Your task to perform on an android device: add a contact Image 0: 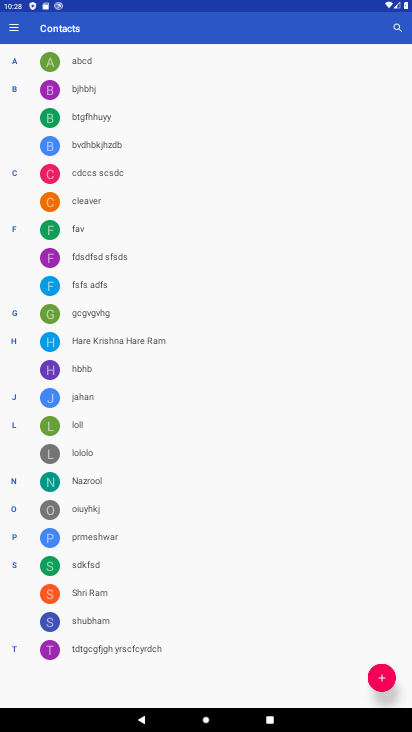
Step 0: click (377, 679)
Your task to perform on an android device: add a contact Image 1: 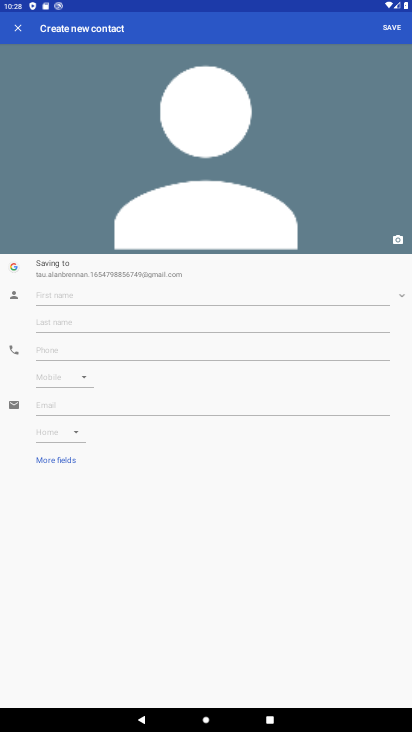
Step 1: click (104, 290)
Your task to perform on an android device: add a contact Image 2: 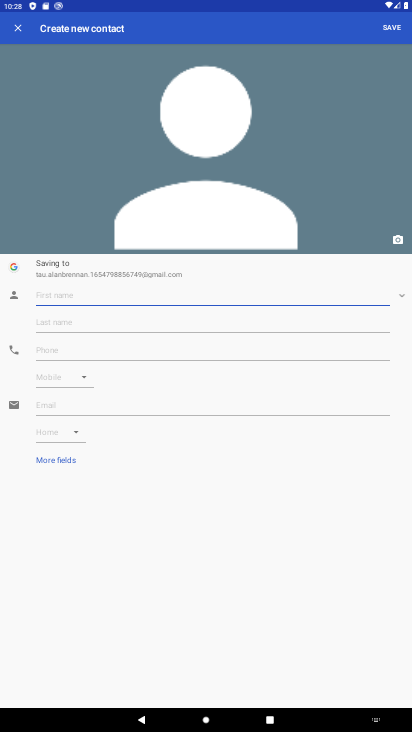
Step 2: type "asdfghh"
Your task to perform on an android device: add a contact Image 3: 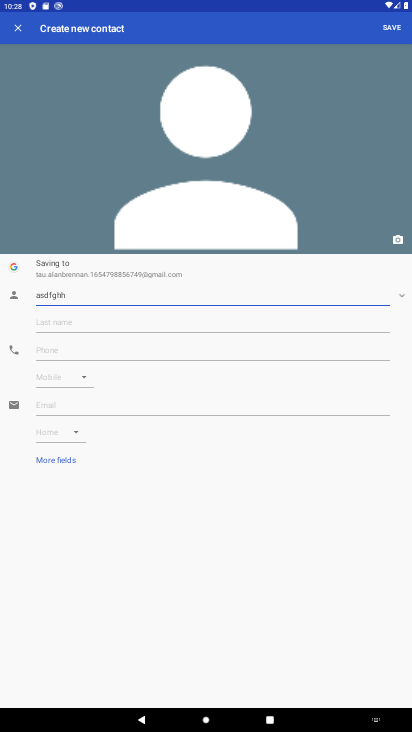
Step 3: click (110, 342)
Your task to perform on an android device: add a contact Image 4: 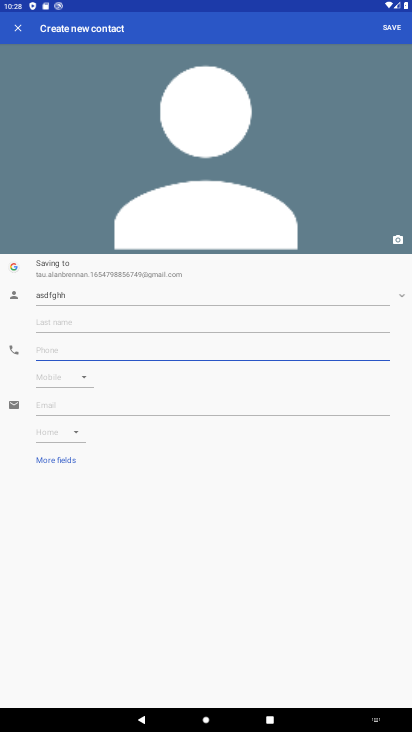
Step 4: type "0987654321"
Your task to perform on an android device: add a contact Image 5: 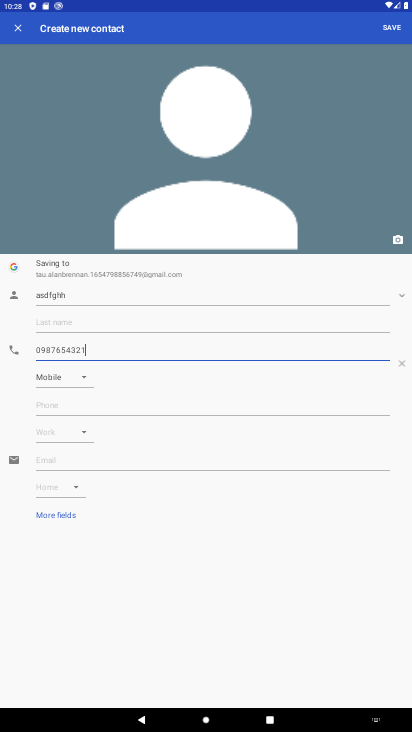
Step 5: click (390, 28)
Your task to perform on an android device: add a contact Image 6: 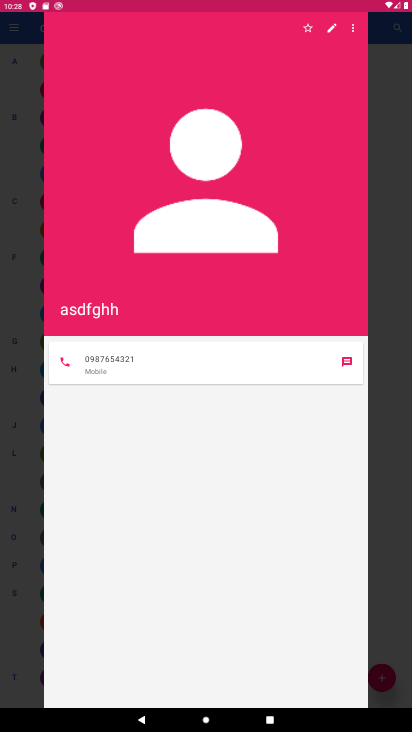
Step 6: task complete